Your task to perform on an android device: open the mobile data screen to see how much data has been used Image 0: 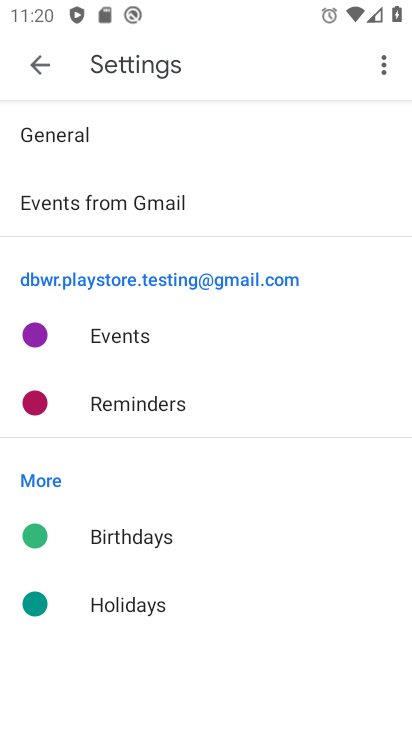
Step 0: press home button
Your task to perform on an android device: open the mobile data screen to see how much data has been used Image 1: 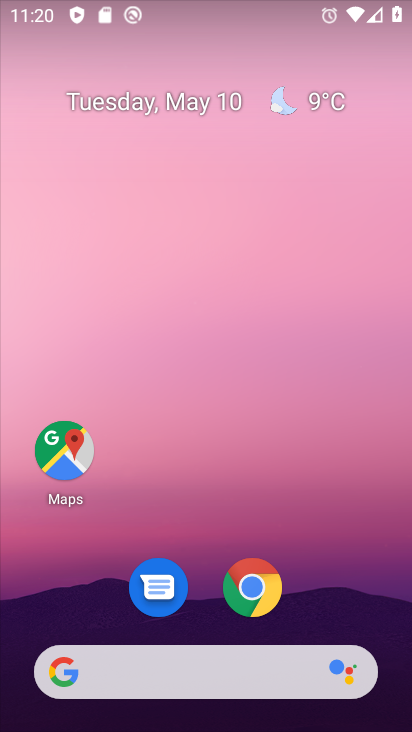
Step 1: drag from (356, 619) to (397, 0)
Your task to perform on an android device: open the mobile data screen to see how much data has been used Image 2: 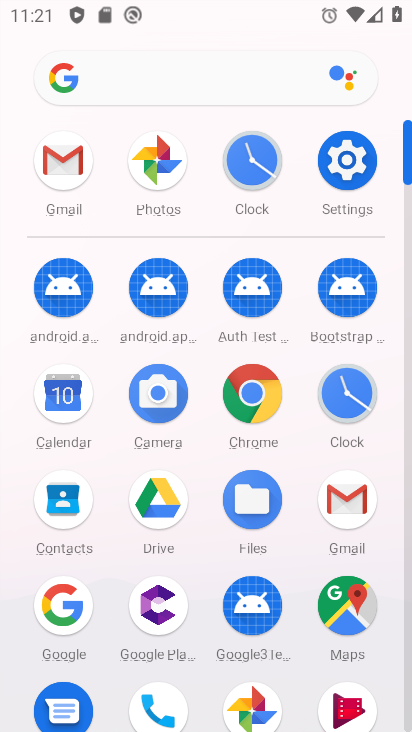
Step 2: click (348, 174)
Your task to perform on an android device: open the mobile data screen to see how much data has been used Image 3: 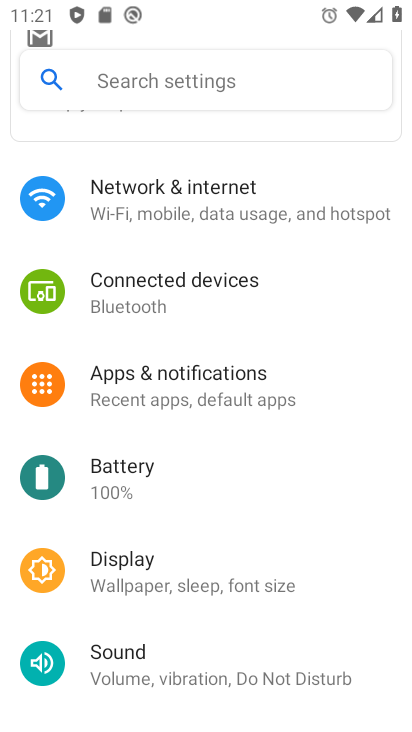
Step 3: click (169, 212)
Your task to perform on an android device: open the mobile data screen to see how much data has been used Image 4: 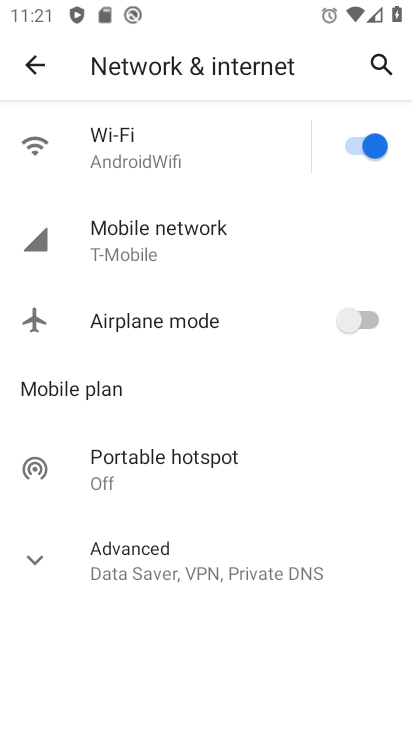
Step 4: click (144, 244)
Your task to perform on an android device: open the mobile data screen to see how much data has been used Image 5: 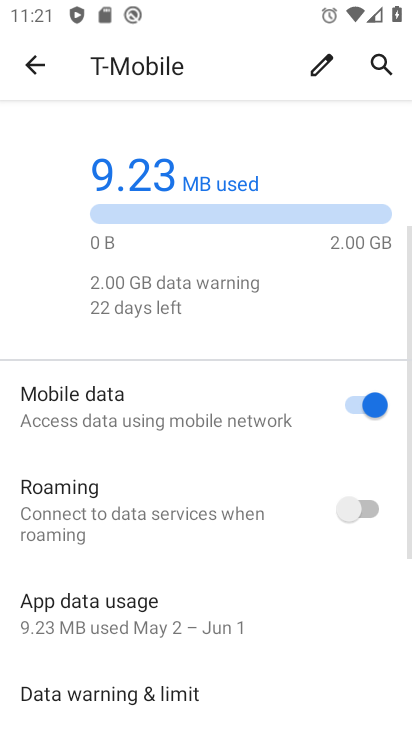
Step 5: drag from (230, 494) to (236, 221)
Your task to perform on an android device: open the mobile data screen to see how much data has been used Image 6: 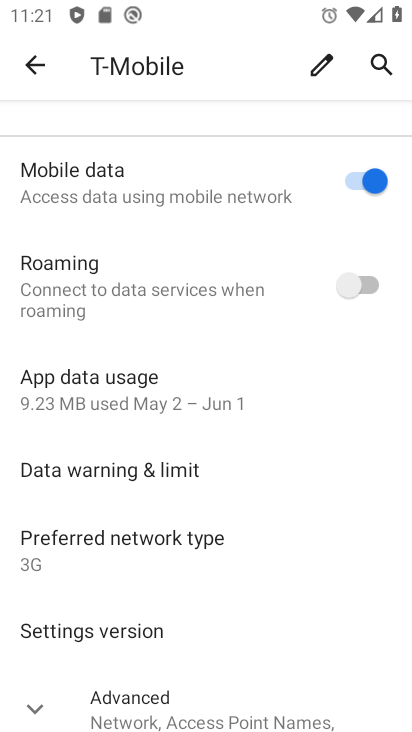
Step 6: click (130, 410)
Your task to perform on an android device: open the mobile data screen to see how much data has been used Image 7: 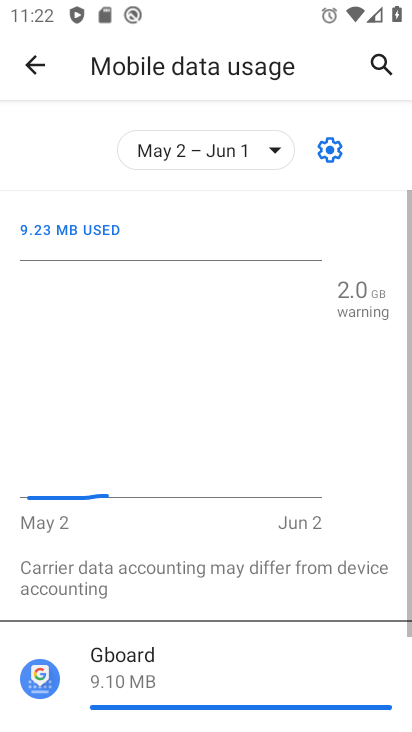
Step 7: task complete